Your task to perform on an android device: Search for seafood restaurants on Google Maps Image 0: 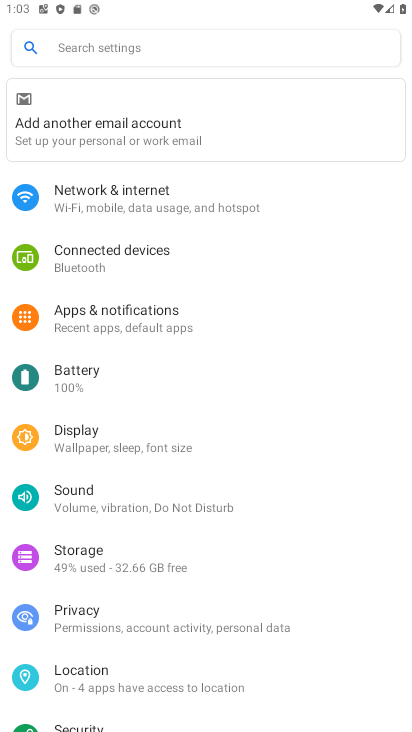
Step 0: press home button
Your task to perform on an android device: Search for seafood restaurants on Google Maps Image 1: 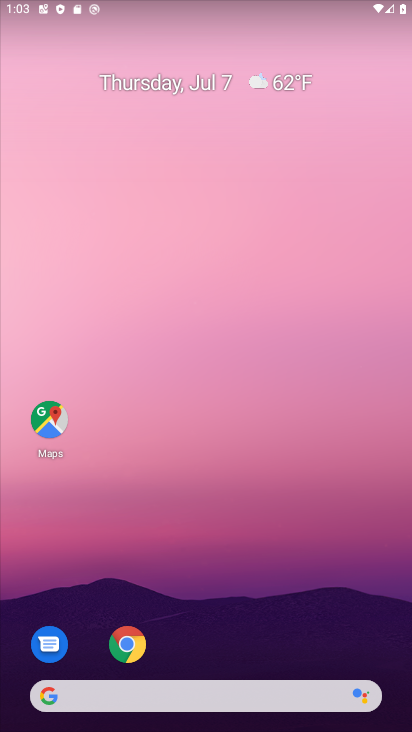
Step 1: drag from (261, 637) to (293, 268)
Your task to perform on an android device: Search for seafood restaurants on Google Maps Image 2: 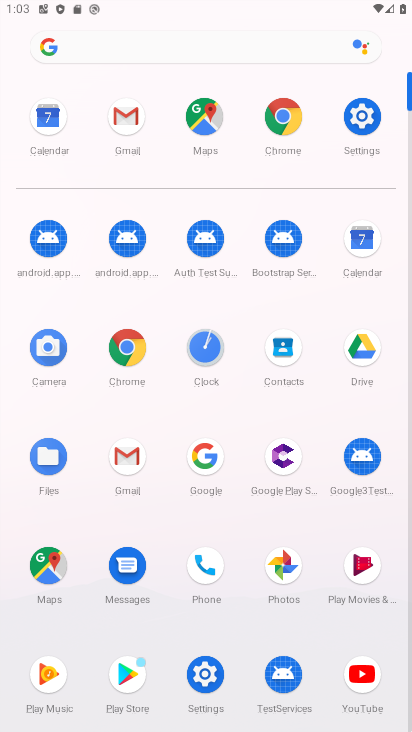
Step 2: click (53, 563)
Your task to perform on an android device: Search for seafood restaurants on Google Maps Image 3: 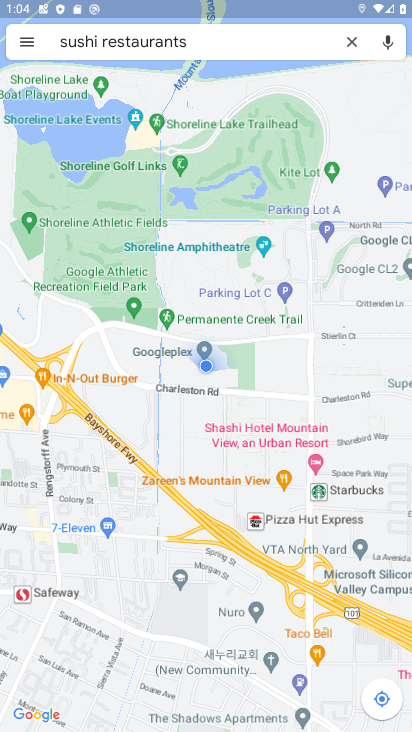
Step 3: click (317, 124)
Your task to perform on an android device: Search for seafood restaurants on Google Maps Image 4: 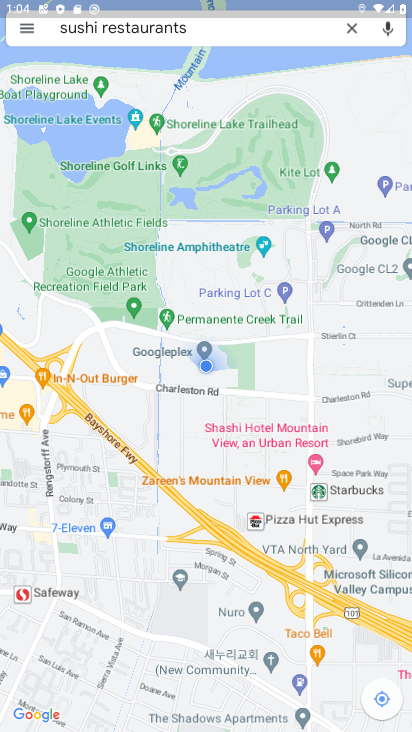
Step 4: click (360, 47)
Your task to perform on an android device: Search for seafood restaurants on Google Maps Image 5: 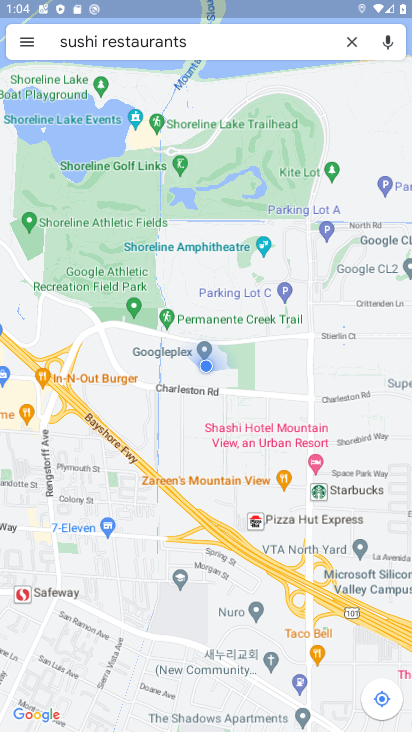
Step 5: click (358, 45)
Your task to perform on an android device: Search for seafood restaurants on Google Maps Image 6: 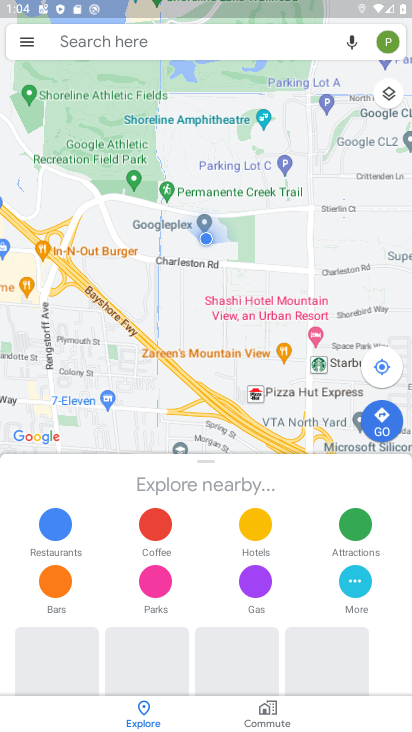
Step 6: click (254, 47)
Your task to perform on an android device: Search for seafood restaurants on Google Maps Image 7: 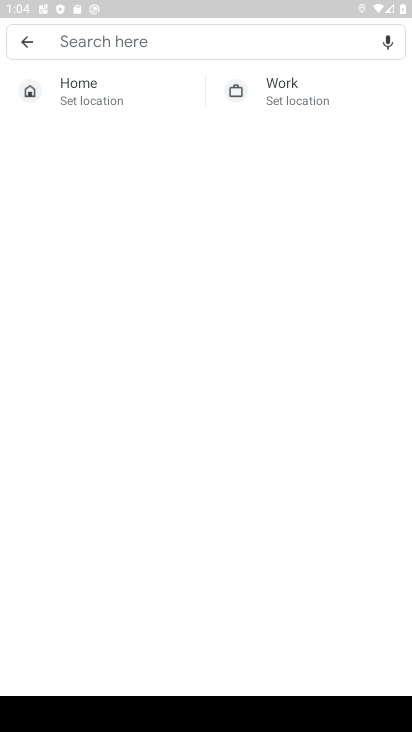
Step 7: type " seafood restaurants"
Your task to perform on an android device: Search for seafood restaurants on Google Maps Image 8: 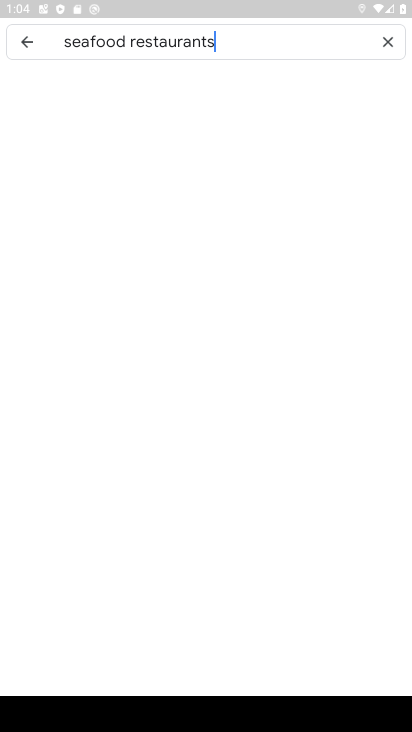
Step 8: type ""
Your task to perform on an android device: Search for seafood restaurants on Google Maps Image 9: 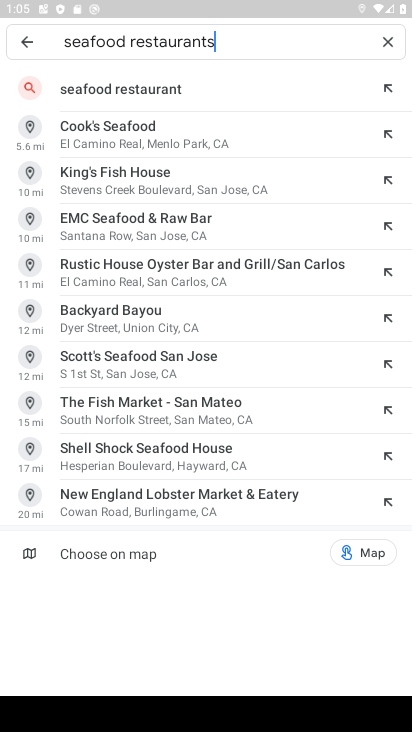
Step 9: click (248, 91)
Your task to perform on an android device: Search for seafood restaurants on Google Maps Image 10: 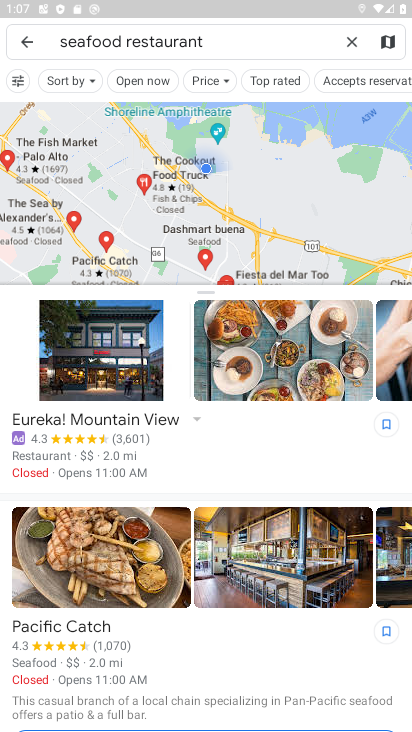
Step 10: task complete